Your task to perform on an android device: turn off smart reply in the gmail app Image 0: 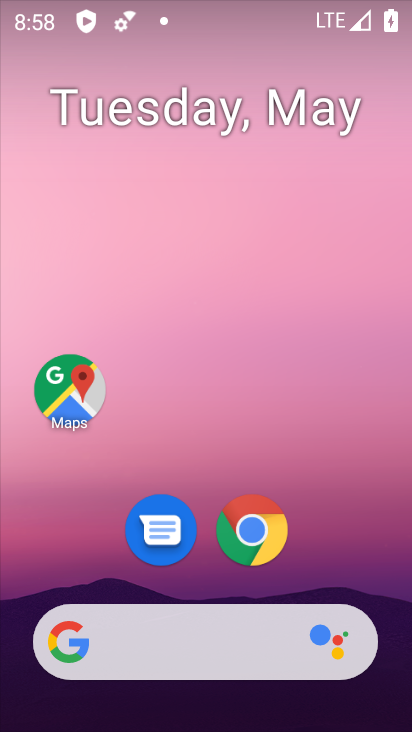
Step 0: drag from (329, 572) to (311, 161)
Your task to perform on an android device: turn off smart reply in the gmail app Image 1: 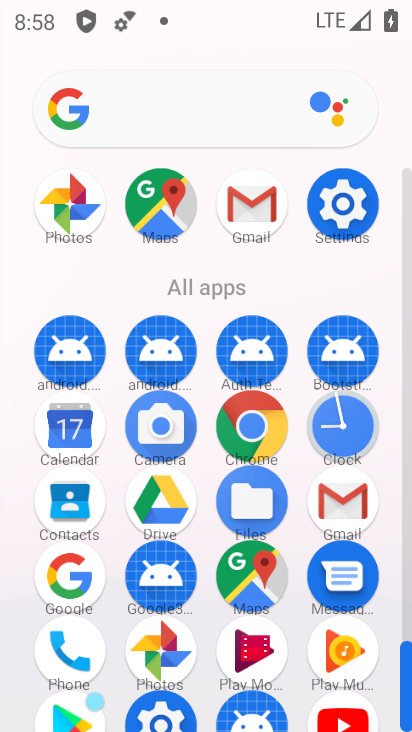
Step 1: click (259, 216)
Your task to perform on an android device: turn off smart reply in the gmail app Image 2: 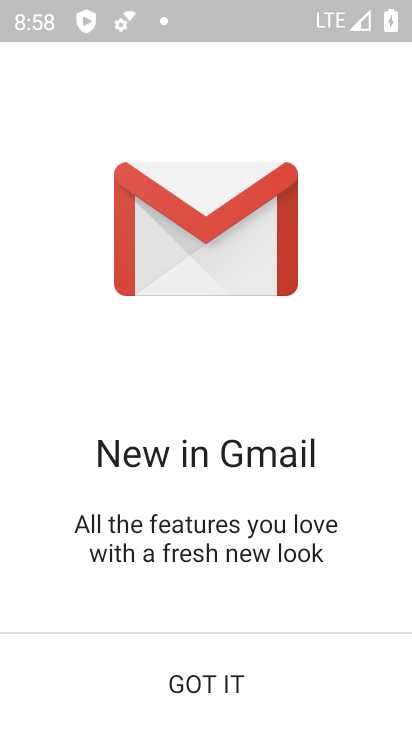
Step 2: click (173, 691)
Your task to perform on an android device: turn off smart reply in the gmail app Image 3: 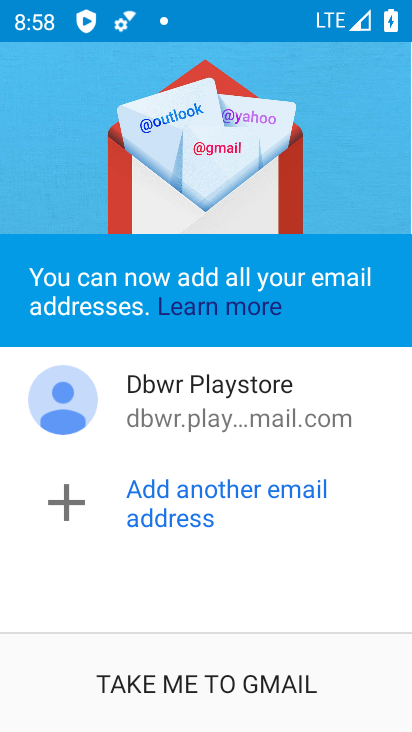
Step 3: click (177, 673)
Your task to perform on an android device: turn off smart reply in the gmail app Image 4: 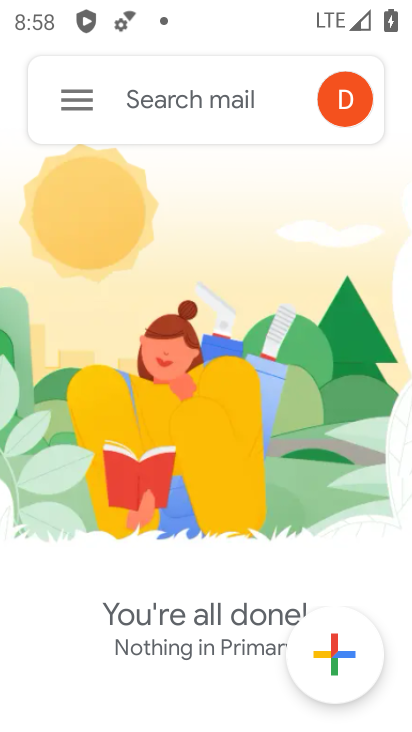
Step 4: click (81, 89)
Your task to perform on an android device: turn off smart reply in the gmail app Image 5: 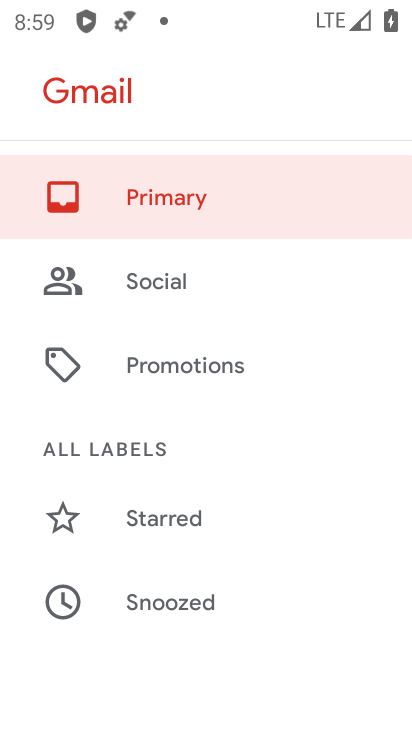
Step 5: drag from (200, 619) to (322, 139)
Your task to perform on an android device: turn off smart reply in the gmail app Image 6: 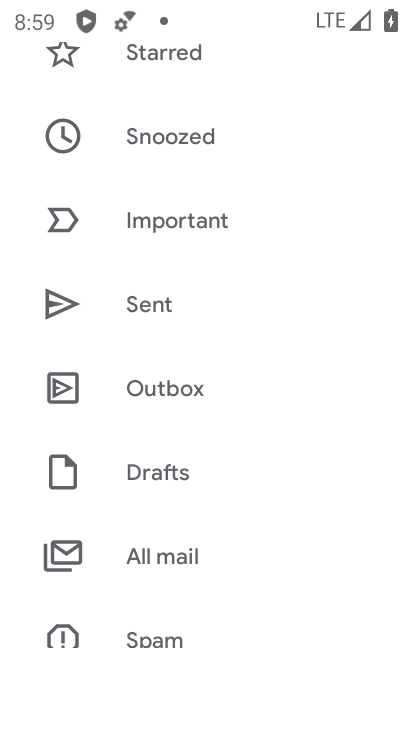
Step 6: drag from (226, 537) to (299, 127)
Your task to perform on an android device: turn off smart reply in the gmail app Image 7: 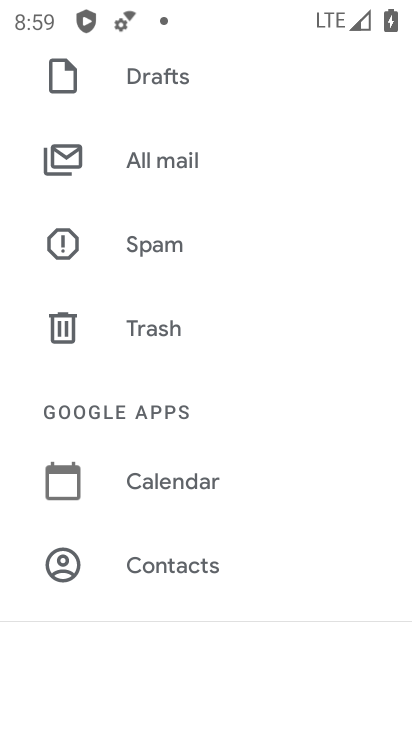
Step 7: drag from (186, 423) to (332, 67)
Your task to perform on an android device: turn off smart reply in the gmail app Image 8: 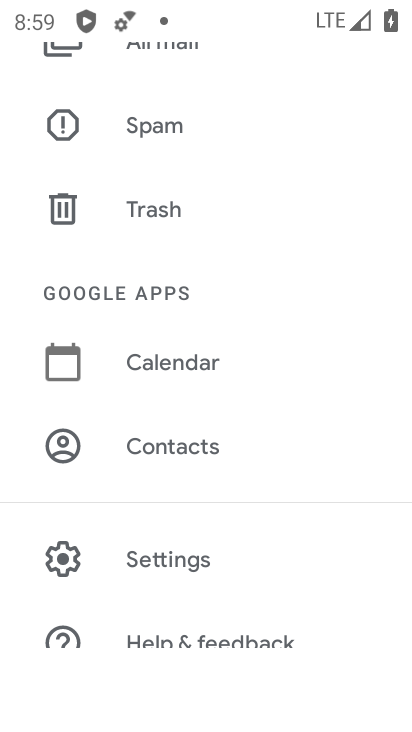
Step 8: click (146, 572)
Your task to perform on an android device: turn off smart reply in the gmail app Image 9: 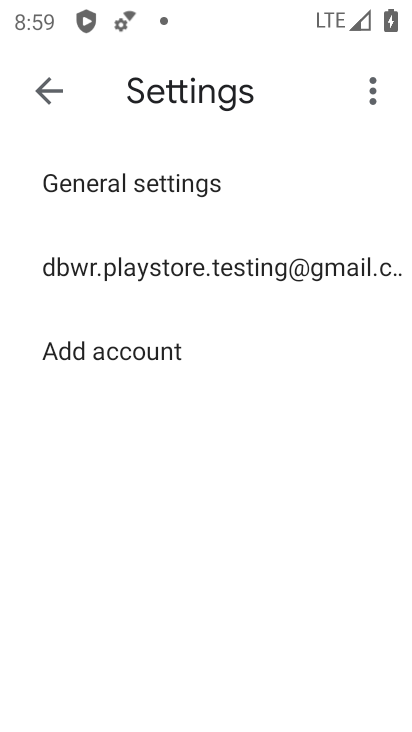
Step 9: click (228, 279)
Your task to perform on an android device: turn off smart reply in the gmail app Image 10: 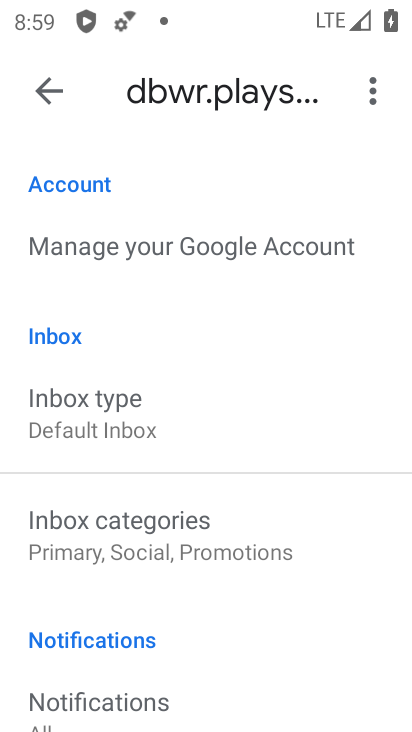
Step 10: drag from (212, 539) to (197, 195)
Your task to perform on an android device: turn off smart reply in the gmail app Image 11: 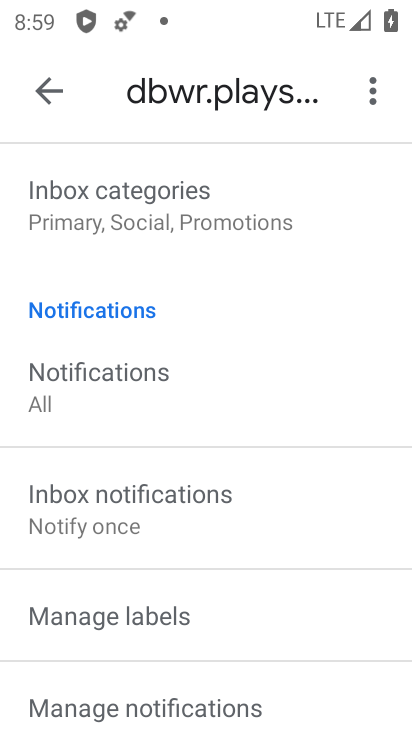
Step 11: drag from (78, 524) to (171, 195)
Your task to perform on an android device: turn off smart reply in the gmail app Image 12: 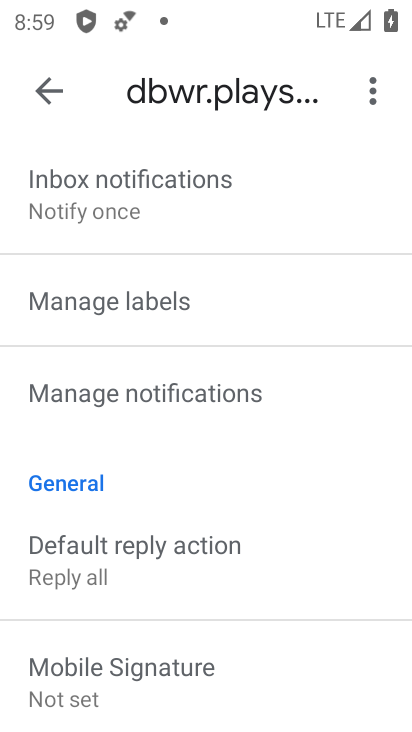
Step 12: drag from (160, 579) to (191, 195)
Your task to perform on an android device: turn off smart reply in the gmail app Image 13: 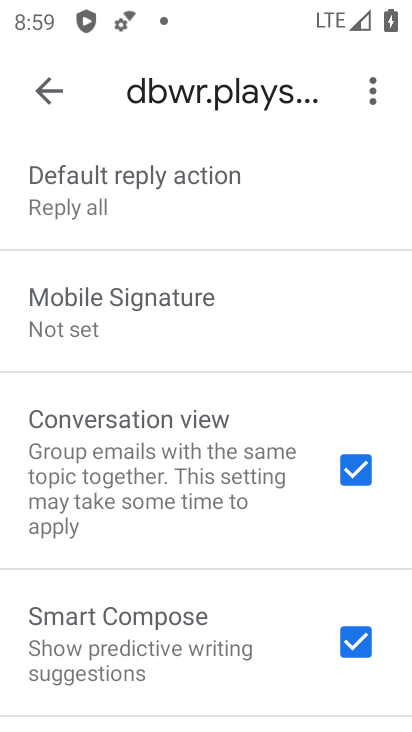
Step 13: drag from (121, 573) to (201, 225)
Your task to perform on an android device: turn off smart reply in the gmail app Image 14: 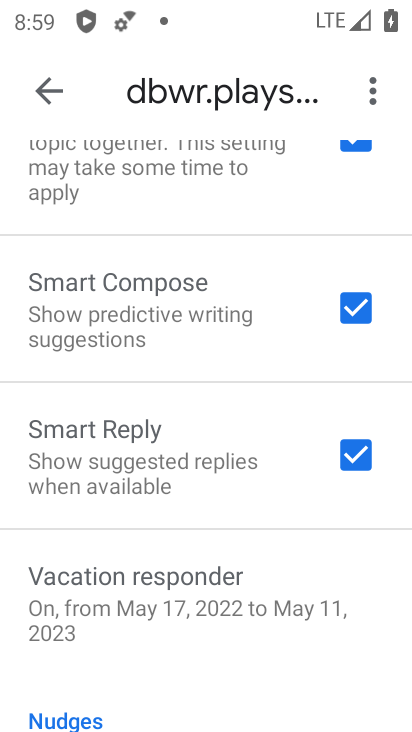
Step 14: click (351, 445)
Your task to perform on an android device: turn off smart reply in the gmail app Image 15: 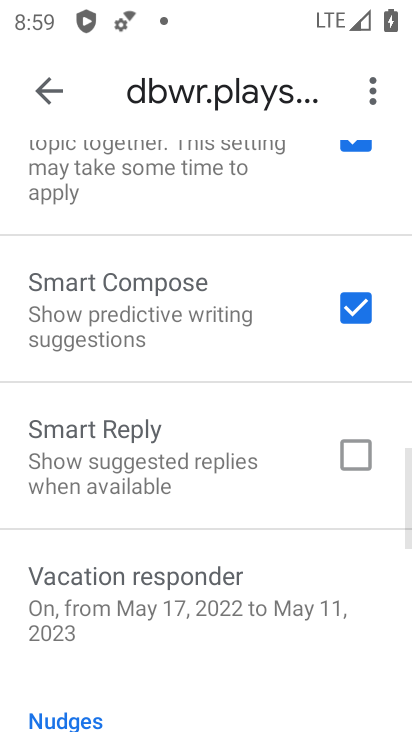
Step 15: task complete